Your task to perform on an android device: change the upload size in google photos Image 0: 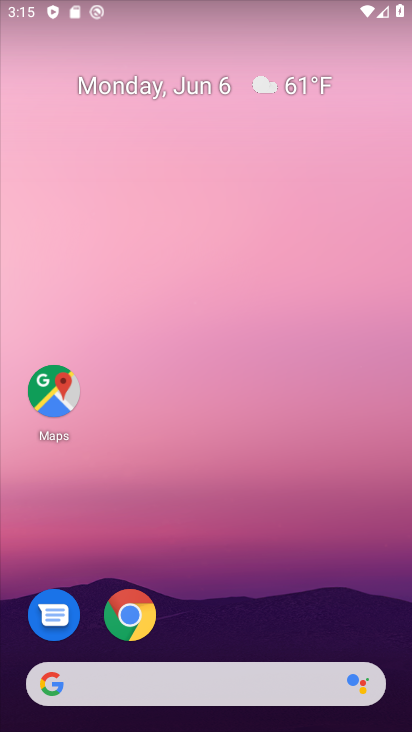
Step 0: drag from (388, 642) to (343, 201)
Your task to perform on an android device: change the upload size in google photos Image 1: 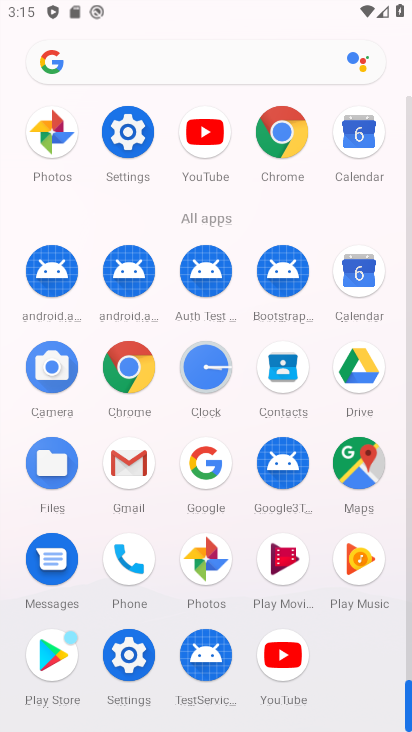
Step 1: click (207, 559)
Your task to perform on an android device: change the upload size in google photos Image 2: 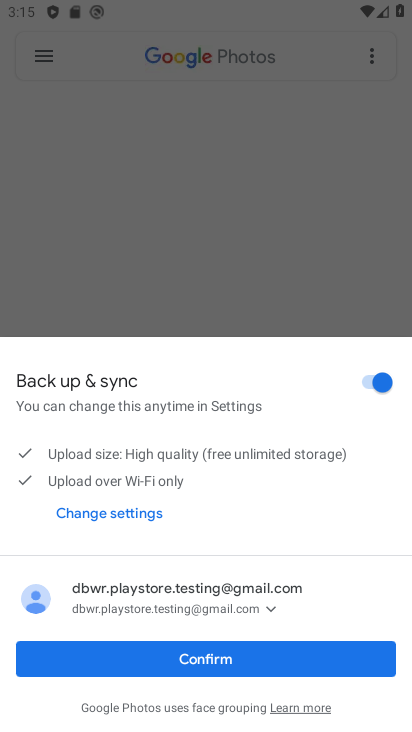
Step 2: click (195, 666)
Your task to perform on an android device: change the upload size in google photos Image 3: 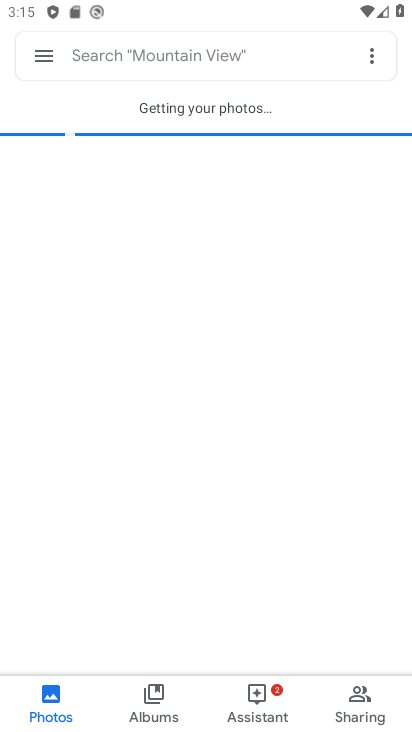
Step 3: click (45, 49)
Your task to perform on an android device: change the upload size in google photos Image 4: 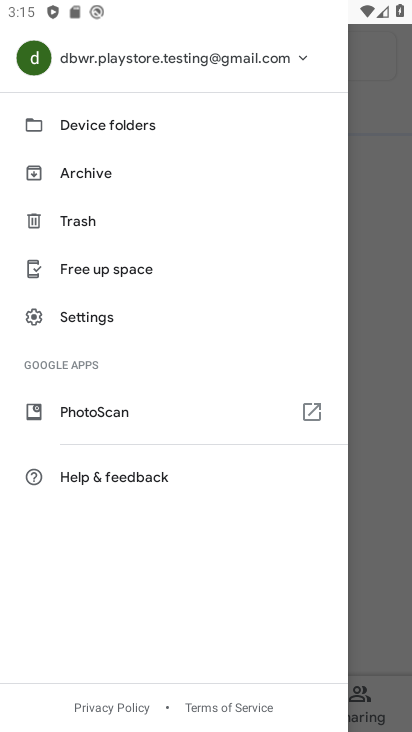
Step 4: click (83, 313)
Your task to perform on an android device: change the upload size in google photos Image 5: 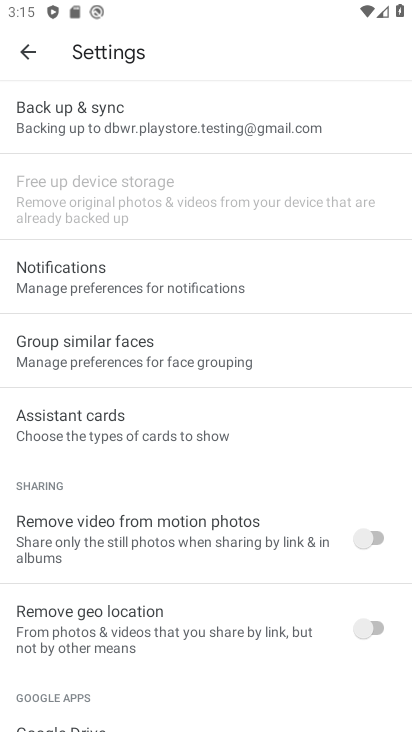
Step 5: click (75, 106)
Your task to perform on an android device: change the upload size in google photos Image 6: 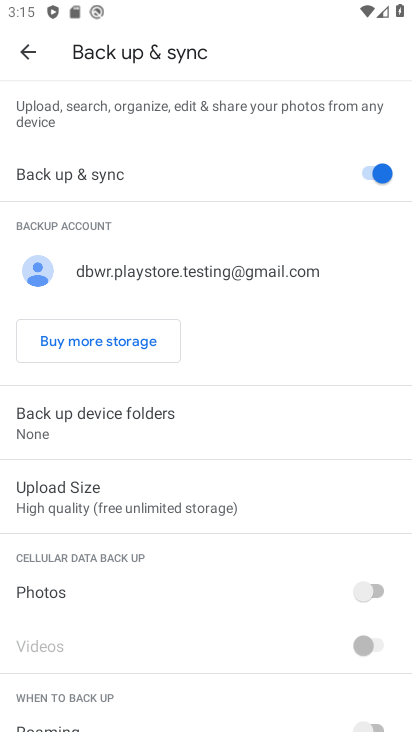
Step 6: click (90, 489)
Your task to perform on an android device: change the upload size in google photos Image 7: 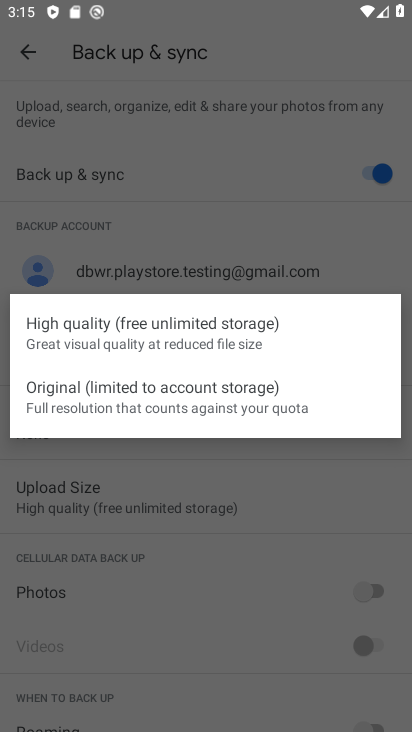
Step 7: click (88, 396)
Your task to perform on an android device: change the upload size in google photos Image 8: 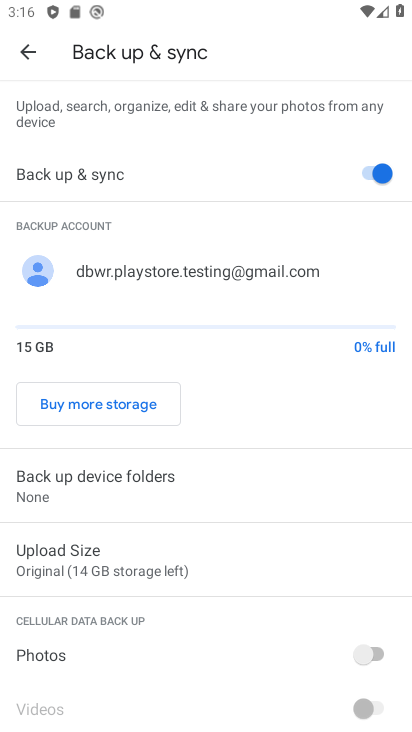
Step 8: click (125, 544)
Your task to perform on an android device: change the upload size in google photos Image 9: 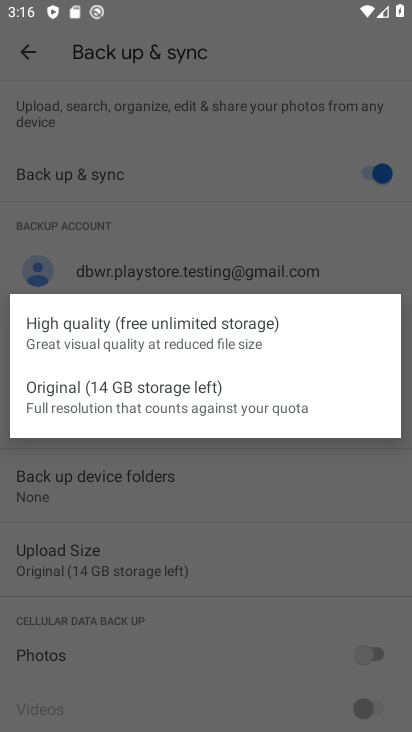
Step 9: click (86, 398)
Your task to perform on an android device: change the upload size in google photos Image 10: 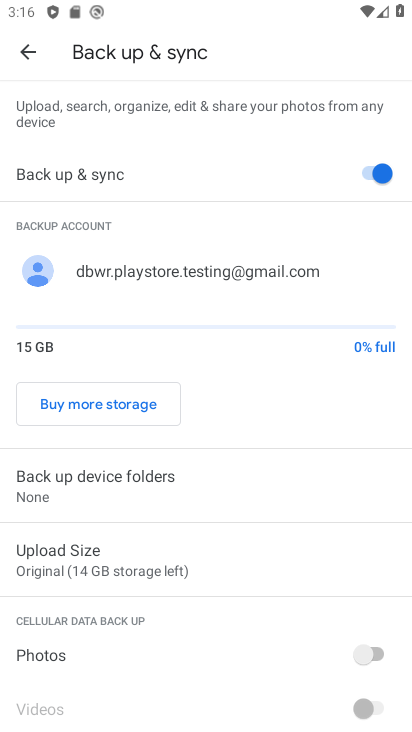
Step 10: task complete